Your task to perform on an android device: toggle pop-ups in chrome Image 0: 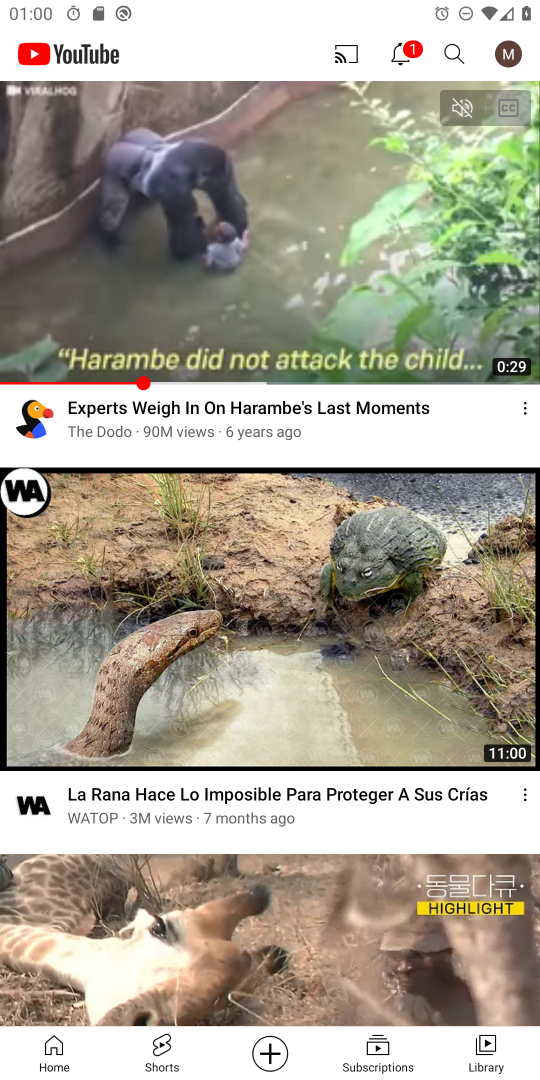
Step 0: press home button
Your task to perform on an android device: toggle pop-ups in chrome Image 1: 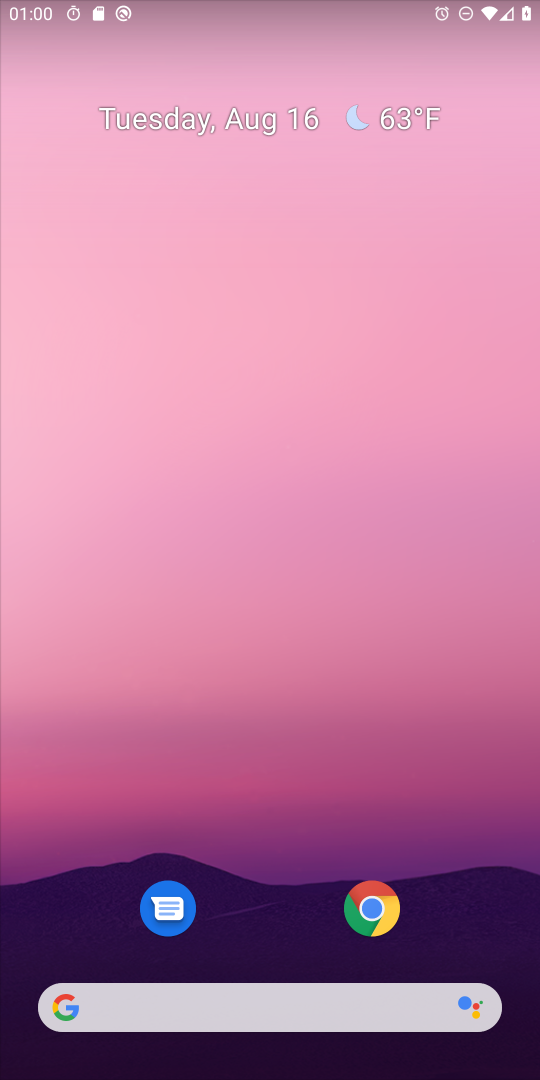
Step 1: click (378, 903)
Your task to perform on an android device: toggle pop-ups in chrome Image 2: 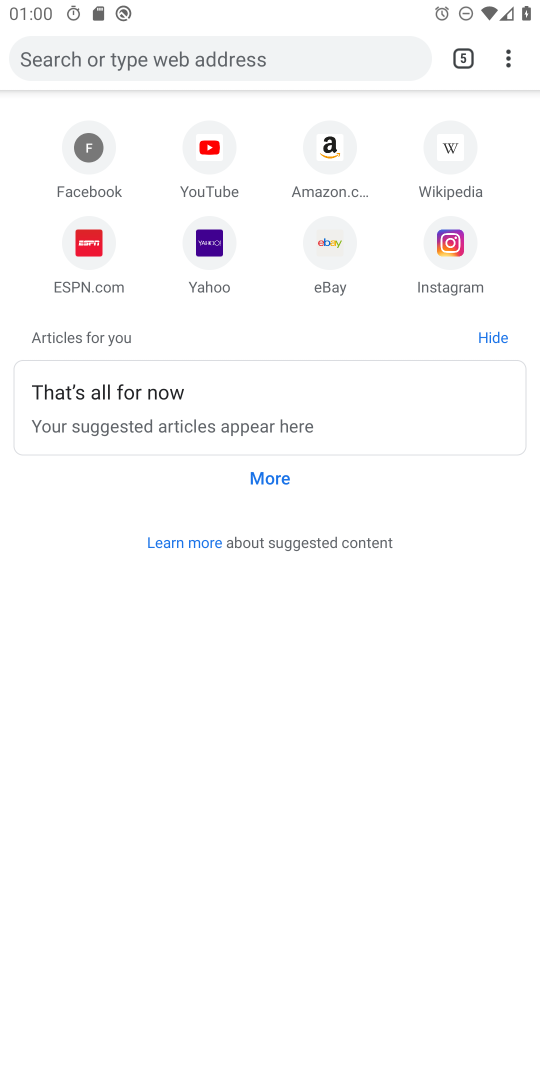
Step 2: click (504, 60)
Your task to perform on an android device: toggle pop-ups in chrome Image 3: 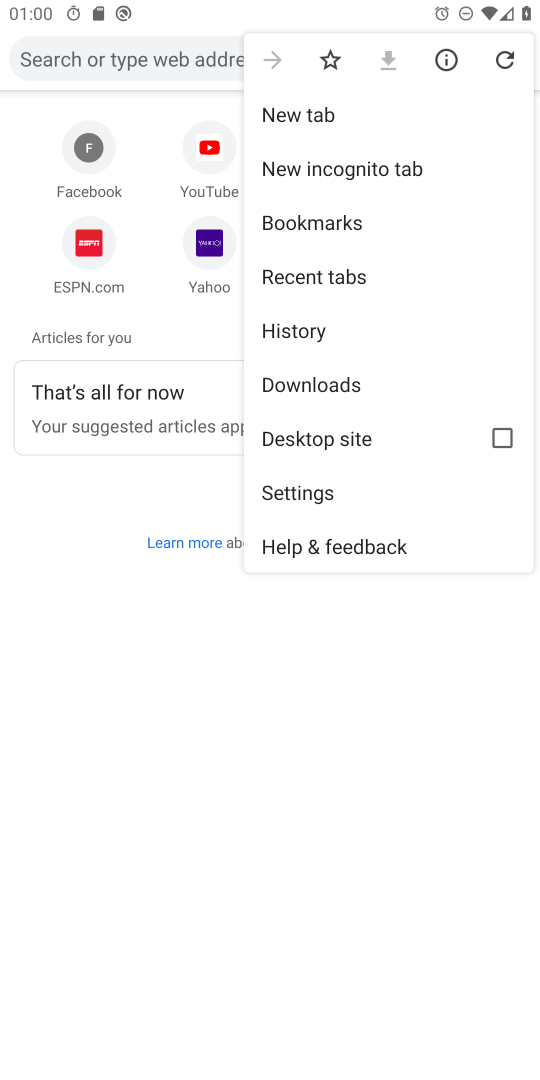
Step 3: click (282, 497)
Your task to perform on an android device: toggle pop-ups in chrome Image 4: 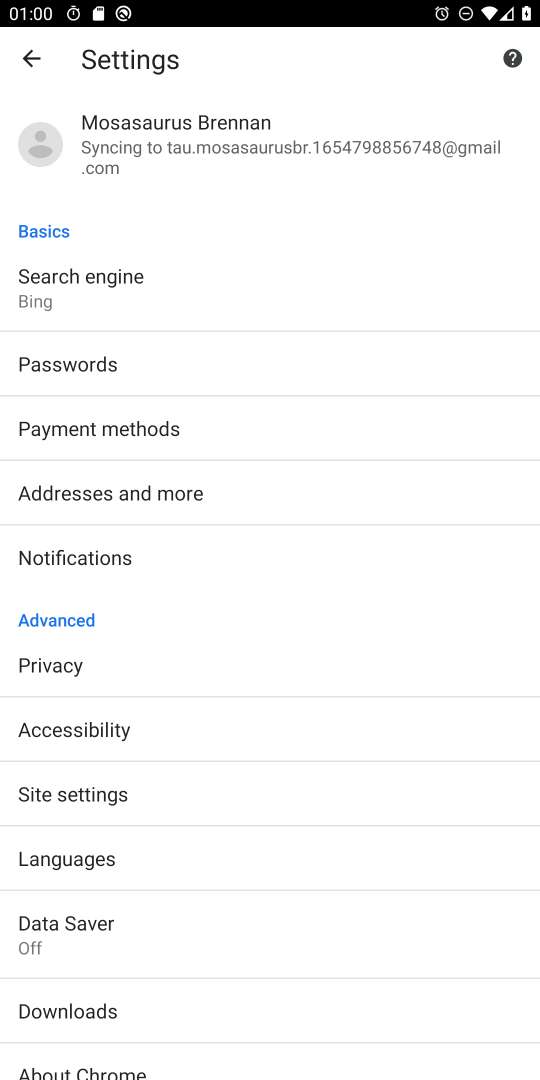
Step 4: click (72, 809)
Your task to perform on an android device: toggle pop-ups in chrome Image 5: 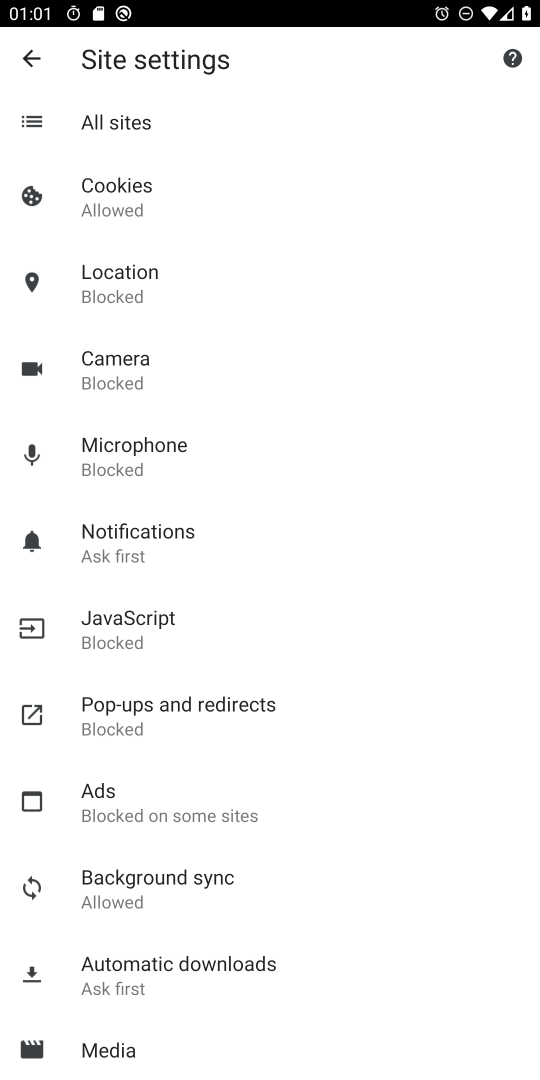
Step 5: click (206, 731)
Your task to perform on an android device: toggle pop-ups in chrome Image 6: 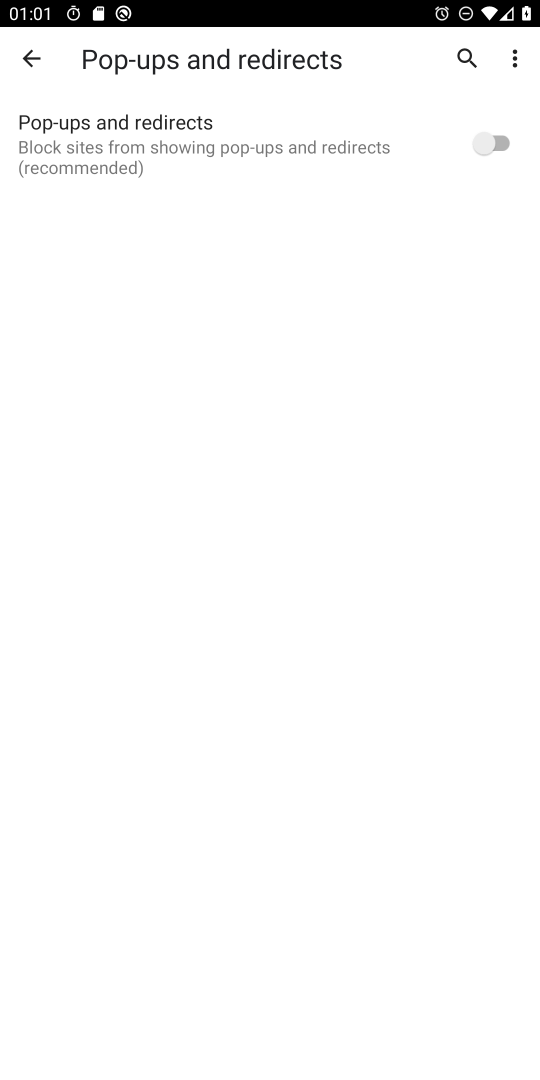
Step 6: click (500, 138)
Your task to perform on an android device: toggle pop-ups in chrome Image 7: 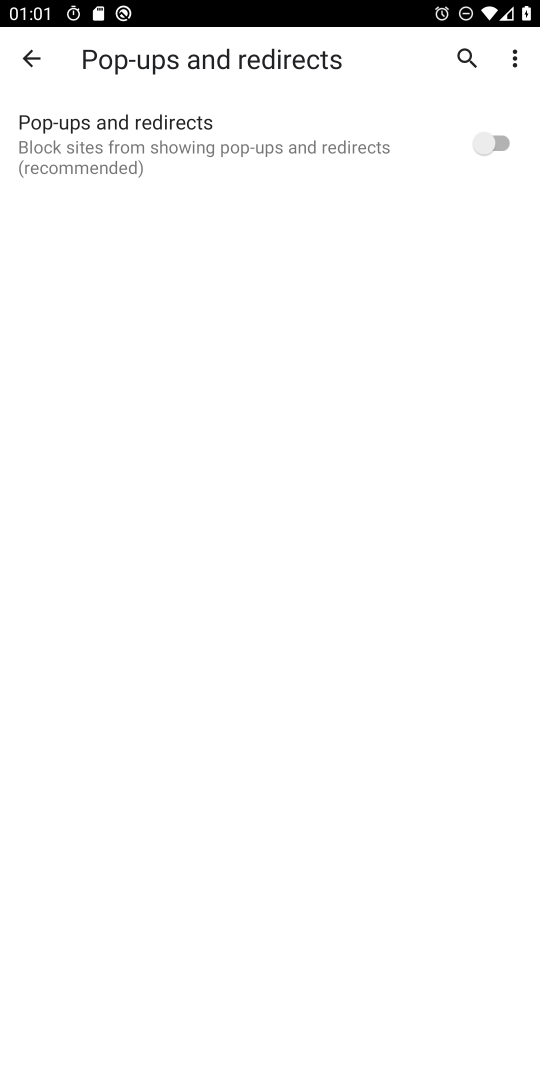
Step 7: click (500, 138)
Your task to perform on an android device: toggle pop-ups in chrome Image 8: 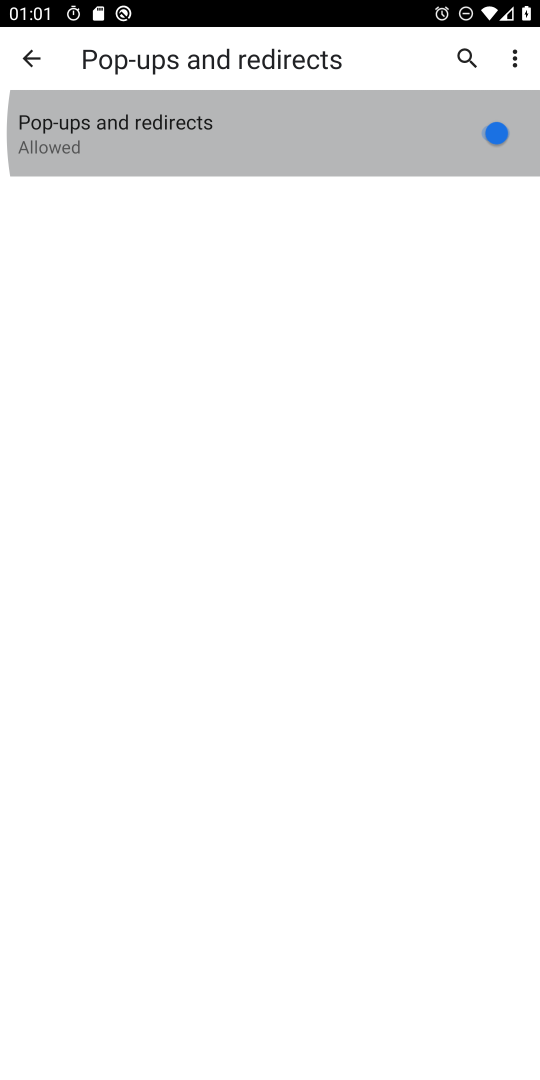
Step 8: click (500, 138)
Your task to perform on an android device: toggle pop-ups in chrome Image 9: 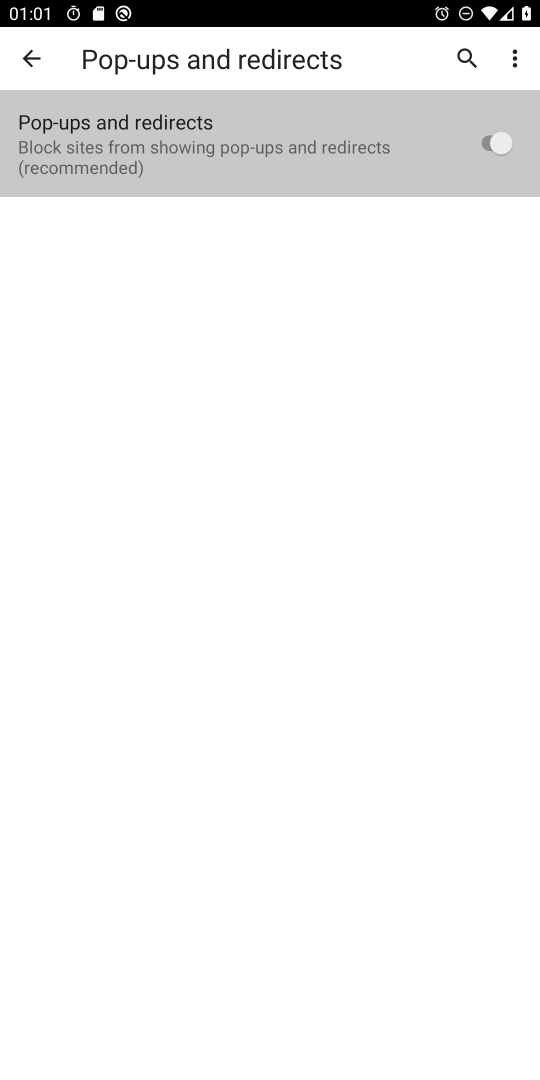
Step 9: click (500, 138)
Your task to perform on an android device: toggle pop-ups in chrome Image 10: 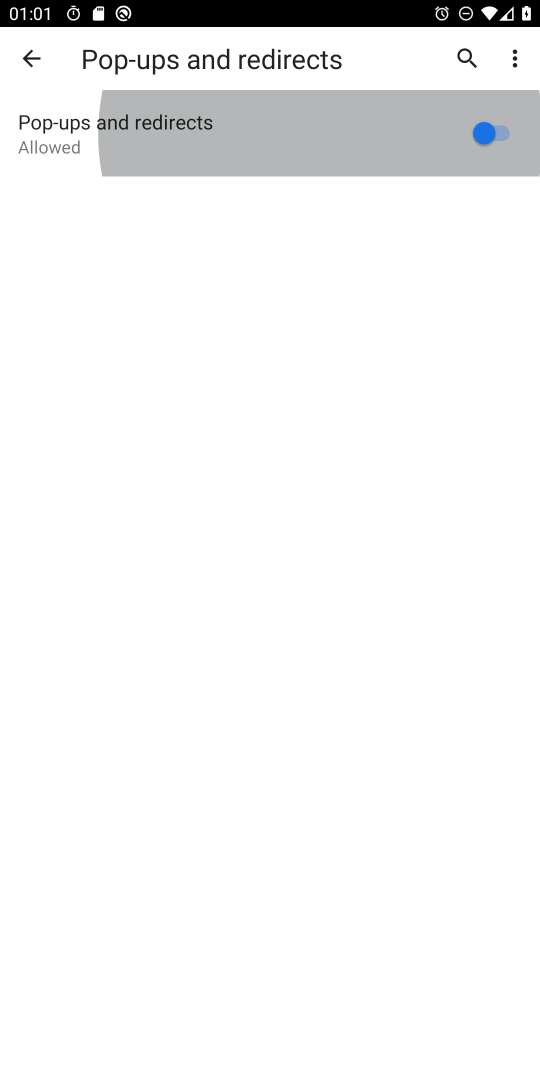
Step 10: click (500, 138)
Your task to perform on an android device: toggle pop-ups in chrome Image 11: 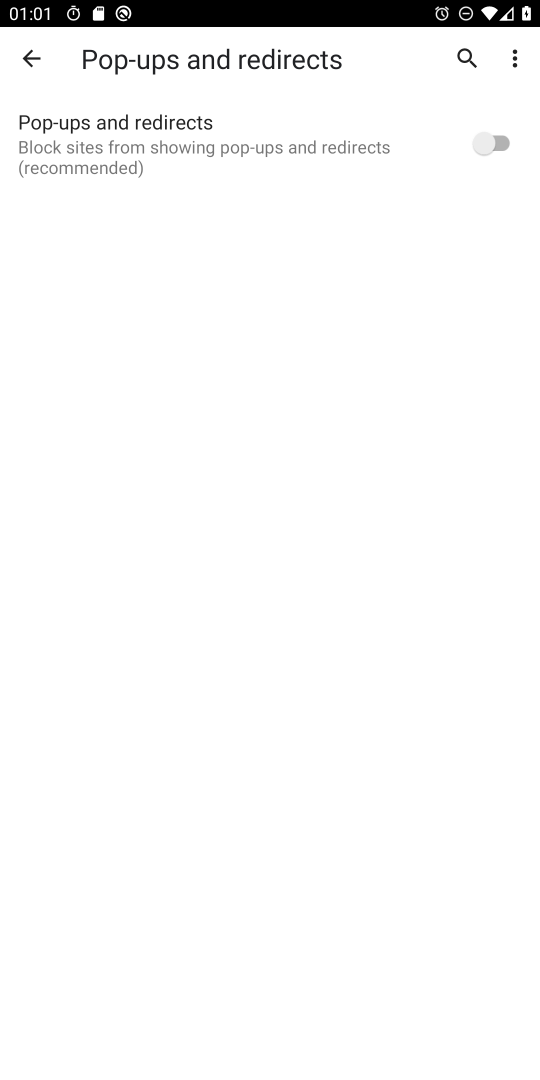
Step 11: task complete